Your task to perform on an android device: change the clock display to show seconds Image 0: 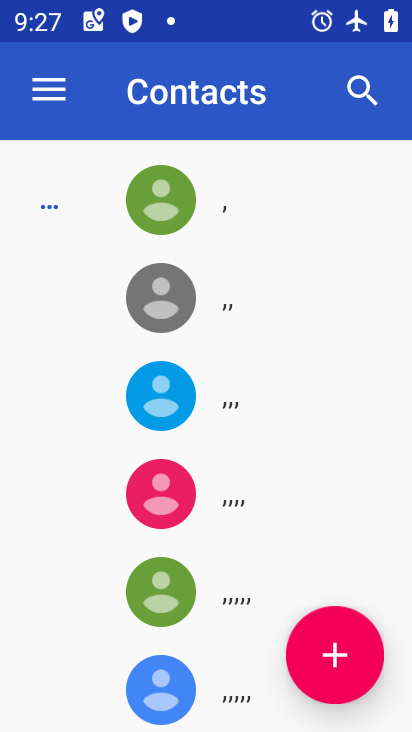
Step 0: press home button
Your task to perform on an android device: change the clock display to show seconds Image 1: 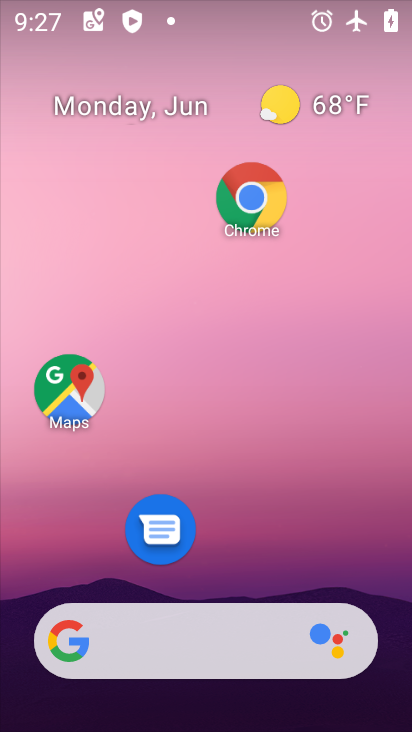
Step 1: drag from (220, 549) to (225, 17)
Your task to perform on an android device: change the clock display to show seconds Image 2: 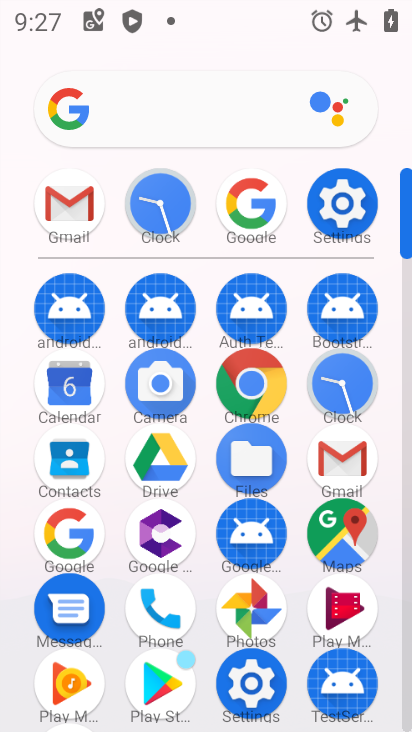
Step 2: click (342, 381)
Your task to perform on an android device: change the clock display to show seconds Image 3: 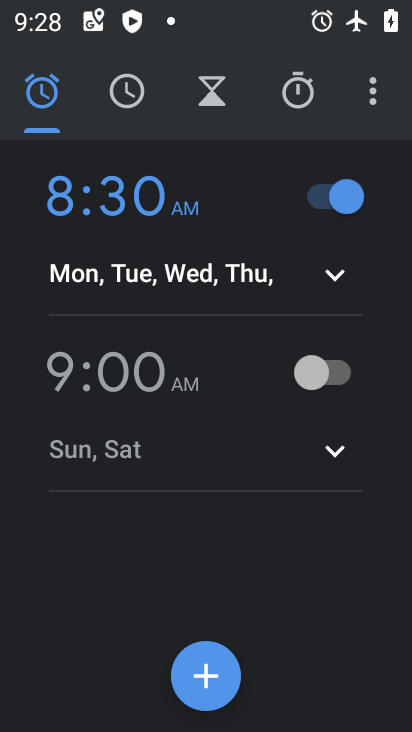
Step 3: click (366, 96)
Your task to perform on an android device: change the clock display to show seconds Image 4: 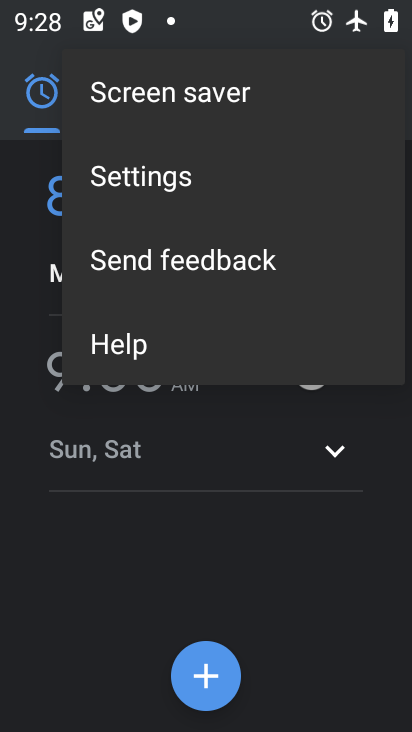
Step 4: click (179, 148)
Your task to perform on an android device: change the clock display to show seconds Image 5: 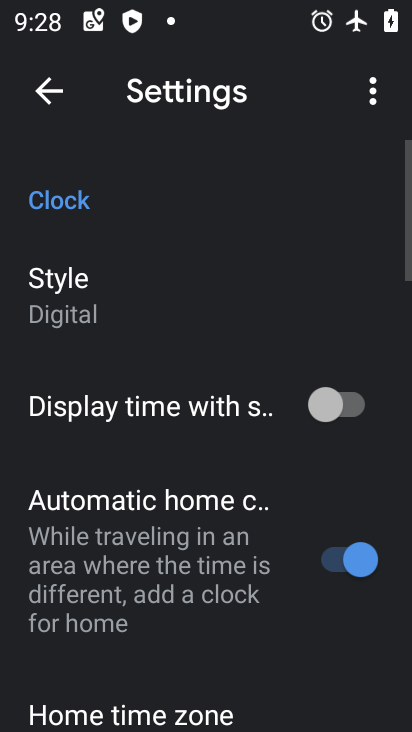
Step 5: click (346, 391)
Your task to perform on an android device: change the clock display to show seconds Image 6: 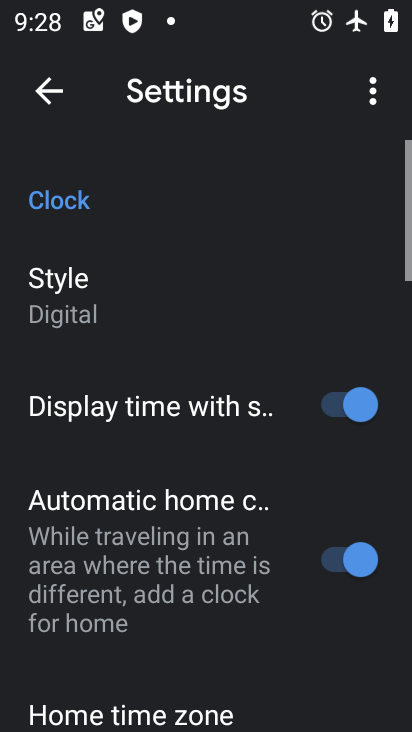
Step 6: task complete